Your task to perform on an android device: Clear the shopping cart on walmart.com. Add "bose soundsport free" to the cart on walmart.com Image 0: 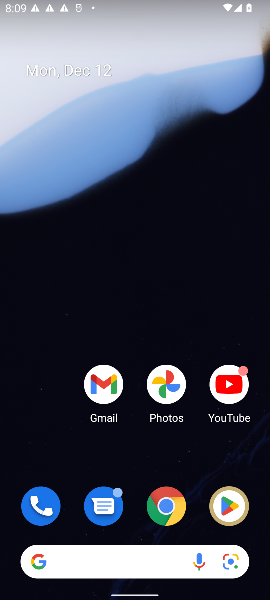
Step 0: click (149, 562)
Your task to perform on an android device: Clear the shopping cart on walmart.com. Add "bose soundsport free" to the cart on walmart.com Image 1: 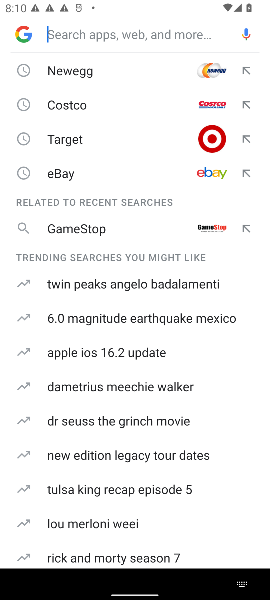
Step 1: type "walmart"
Your task to perform on an android device: Clear the shopping cart on walmart.com. Add "bose soundsport free" to the cart on walmart.com Image 2: 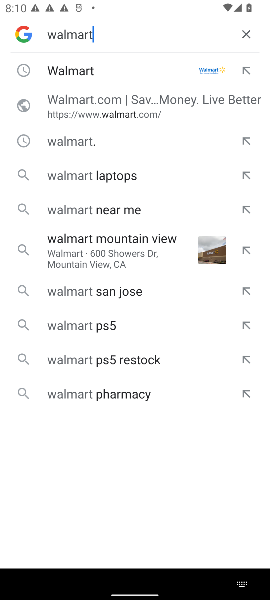
Step 2: click (174, 77)
Your task to perform on an android device: Clear the shopping cart on walmart.com. Add "bose soundsport free" to the cart on walmart.com Image 3: 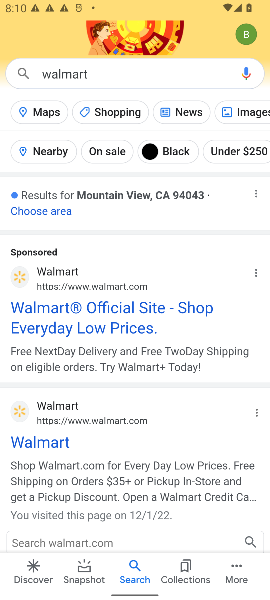
Step 3: click (117, 324)
Your task to perform on an android device: Clear the shopping cart on walmart.com. Add "bose soundsport free" to the cart on walmart.com Image 4: 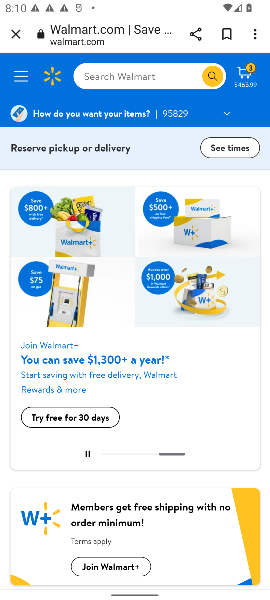
Step 4: click (135, 76)
Your task to perform on an android device: Clear the shopping cart on walmart.com. Add "bose soundsport free" to the cart on walmart.com Image 5: 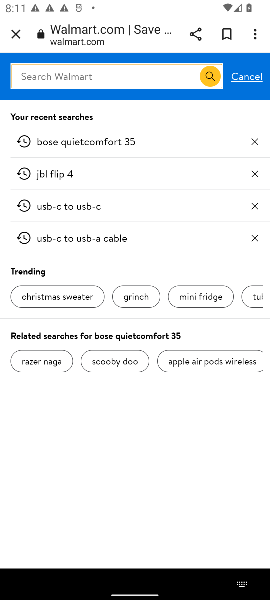
Step 5: type "bose soundsport"
Your task to perform on an android device: Clear the shopping cart on walmart.com. Add "bose soundsport free" to the cart on walmart.com Image 6: 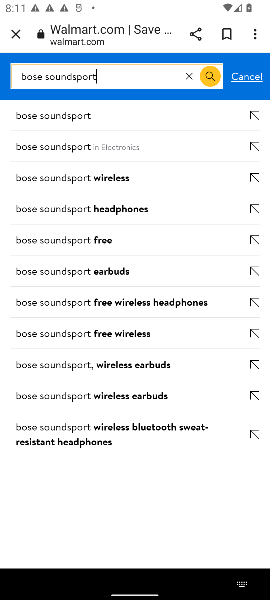
Step 6: click (80, 252)
Your task to perform on an android device: Clear the shopping cart on walmart.com. Add "bose soundsport free" to the cart on walmart.com Image 7: 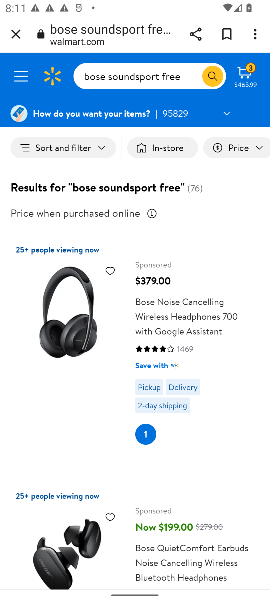
Step 7: click (241, 84)
Your task to perform on an android device: Clear the shopping cart on walmart.com. Add "bose soundsport free" to the cart on walmart.com Image 8: 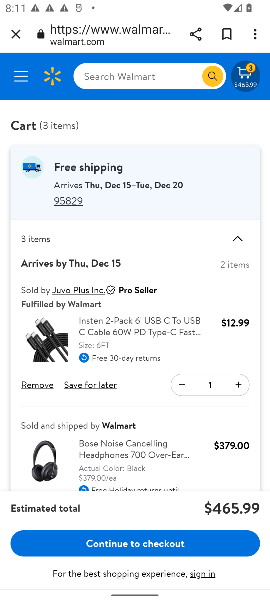
Step 8: click (42, 391)
Your task to perform on an android device: Clear the shopping cart on walmart.com. Add "bose soundsport free" to the cart on walmart.com Image 9: 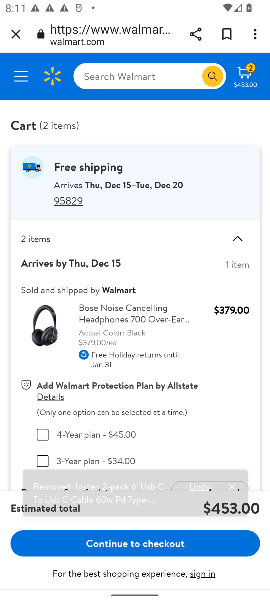
Step 9: click (238, 492)
Your task to perform on an android device: Clear the shopping cart on walmart.com. Add "bose soundsport free" to the cart on walmart.com Image 10: 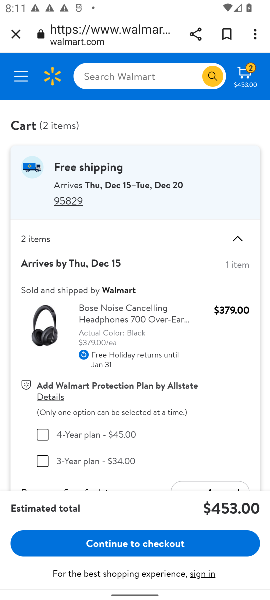
Step 10: drag from (208, 451) to (187, 303)
Your task to perform on an android device: Clear the shopping cart on walmart.com. Add "bose soundsport free" to the cart on walmart.com Image 11: 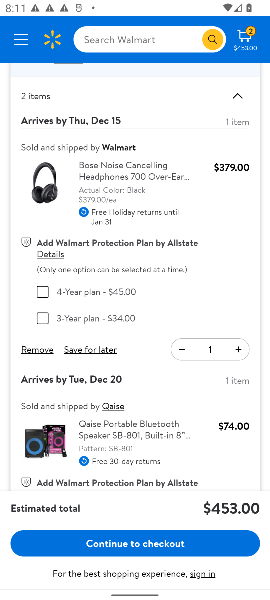
Step 11: click (42, 353)
Your task to perform on an android device: Clear the shopping cart on walmart.com. Add "bose soundsport free" to the cart on walmart.com Image 12: 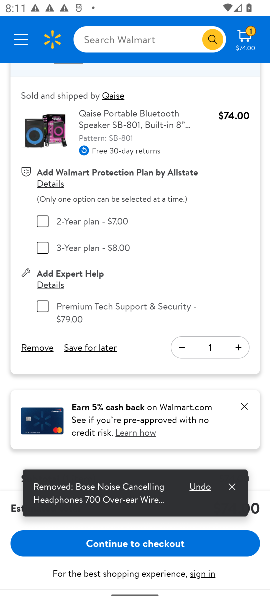
Step 12: click (42, 353)
Your task to perform on an android device: Clear the shopping cart on walmart.com. Add "bose soundsport free" to the cart on walmart.com Image 13: 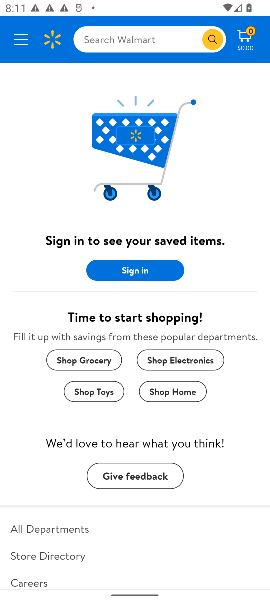
Step 13: press back button
Your task to perform on an android device: Clear the shopping cart on walmart.com. Add "bose soundsport free" to the cart on walmart.com Image 14: 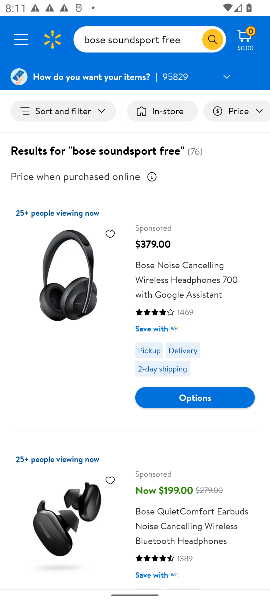
Step 14: click (196, 397)
Your task to perform on an android device: Clear the shopping cart on walmart.com. Add "bose soundsport free" to the cart on walmart.com Image 15: 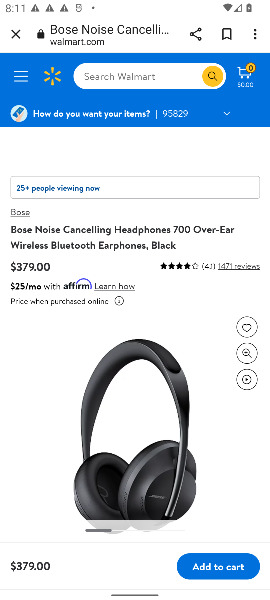
Step 15: click (209, 561)
Your task to perform on an android device: Clear the shopping cart on walmart.com. Add "bose soundsport free" to the cart on walmart.com Image 16: 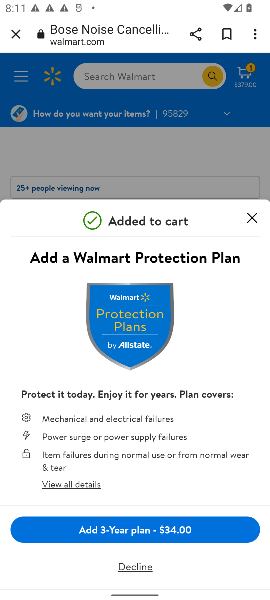
Step 16: task complete